Your task to perform on an android device: Search for Italian restaurants on Maps Image 0: 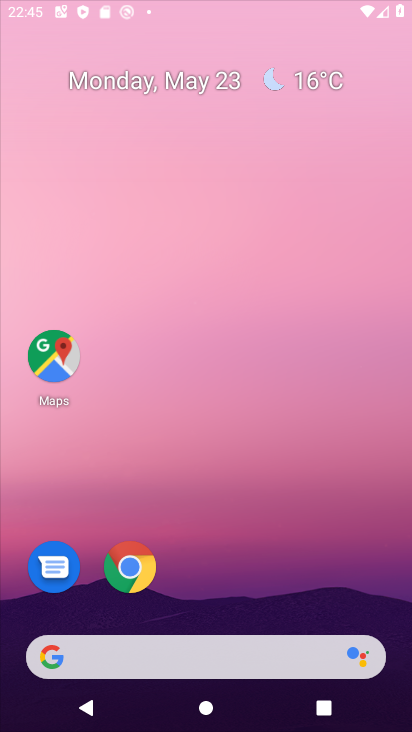
Step 0: click (317, 73)
Your task to perform on an android device: Search for Italian restaurants on Maps Image 1: 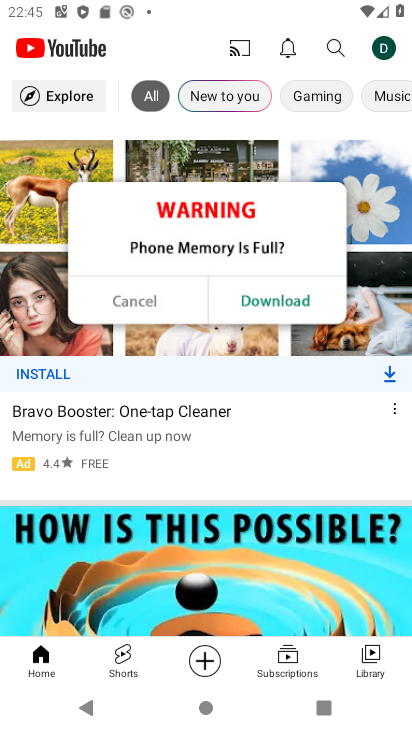
Step 1: drag from (229, 578) to (295, 134)
Your task to perform on an android device: Search for Italian restaurants on Maps Image 2: 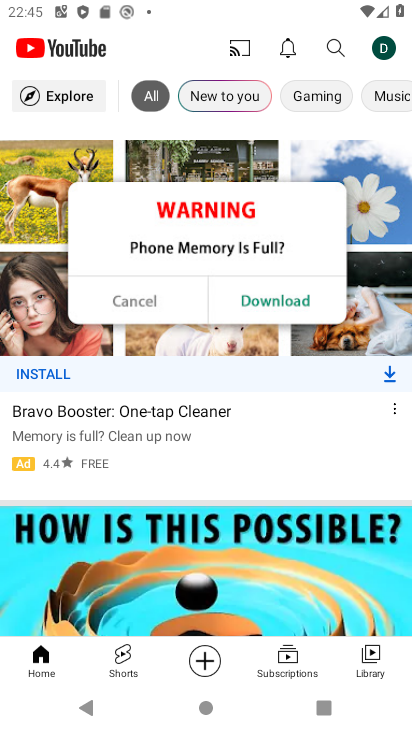
Step 2: drag from (265, 491) to (272, 67)
Your task to perform on an android device: Search for Italian restaurants on Maps Image 3: 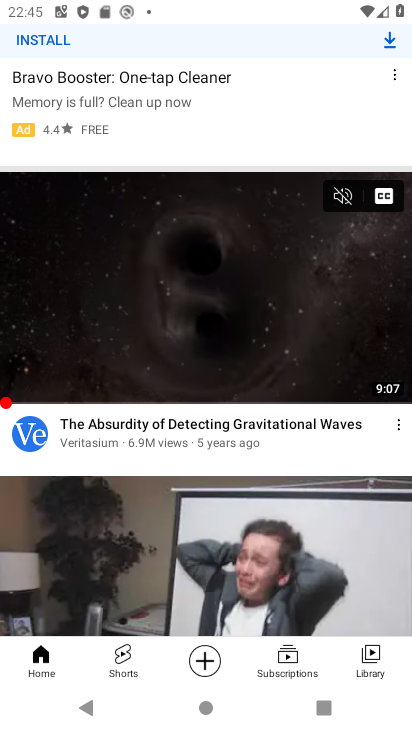
Step 3: drag from (185, 567) to (392, 17)
Your task to perform on an android device: Search for Italian restaurants on Maps Image 4: 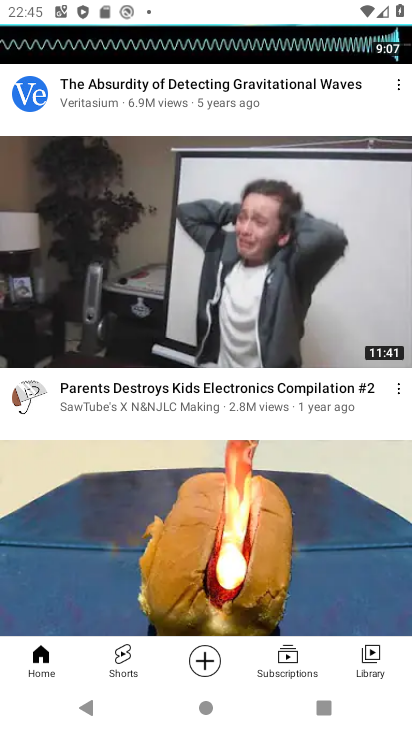
Step 4: press home button
Your task to perform on an android device: Search for Italian restaurants on Maps Image 5: 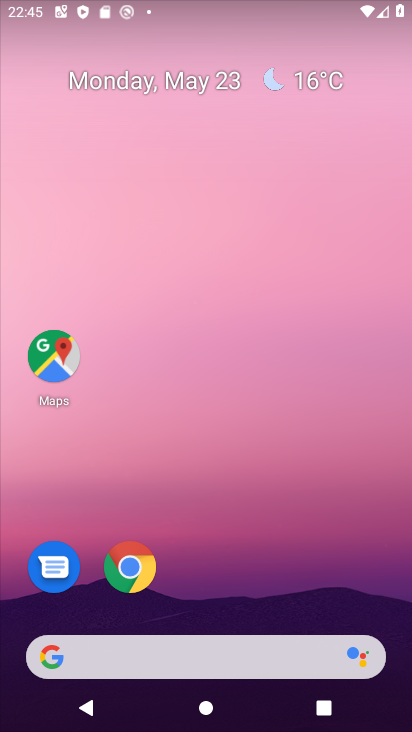
Step 5: drag from (164, 616) to (231, 85)
Your task to perform on an android device: Search for Italian restaurants on Maps Image 6: 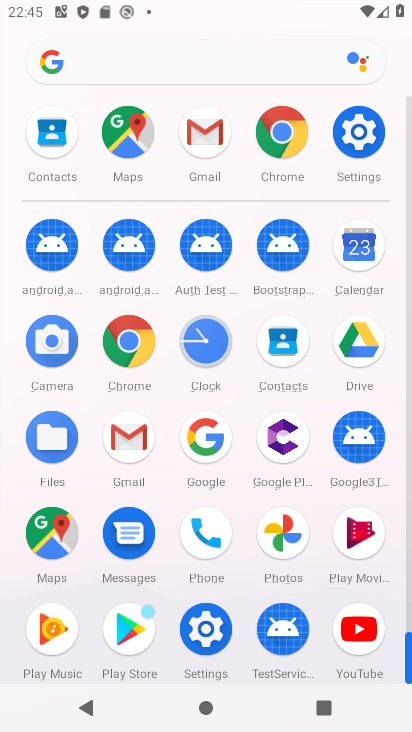
Step 6: click (51, 523)
Your task to perform on an android device: Search for Italian restaurants on Maps Image 7: 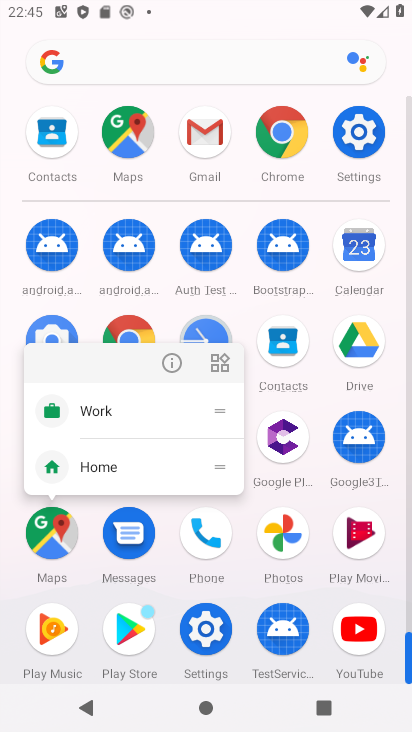
Step 7: click (166, 369)
Your task to perform on an android device: Search for Italian restaurants on Maps Image 8: 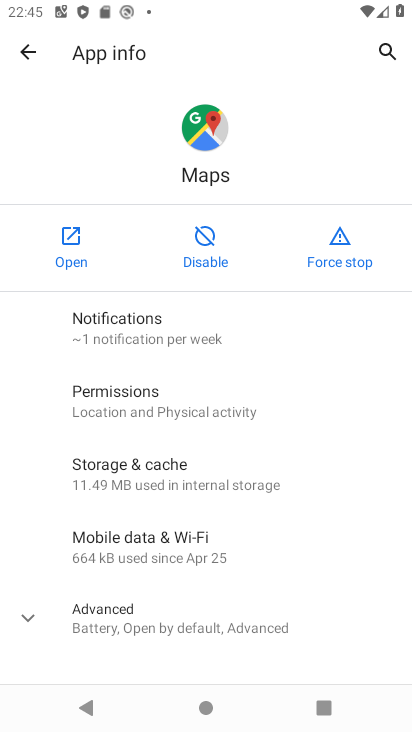
Step 8: click (69, 231)
Your task to perform on an android device: Search for Italian restaurants on Maps Image 9: 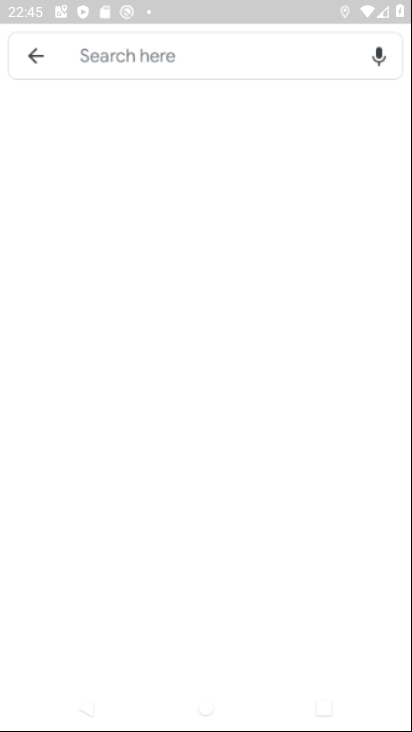
Step 9: drag from (195, 622) to (291, 123)
Your task to perform on an android device: Search for Italian restaurants on Maps Image 10: 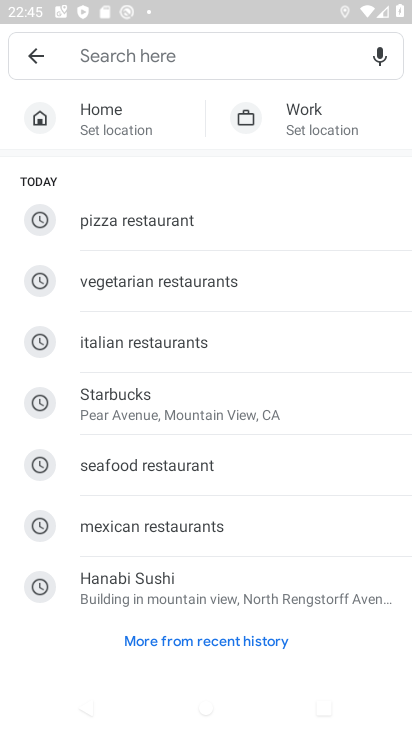
Step 10: drag from (245, 579) to (283, 196)
Your task to perform on an android device: Search for Italian restaurants on Maps Image 11: 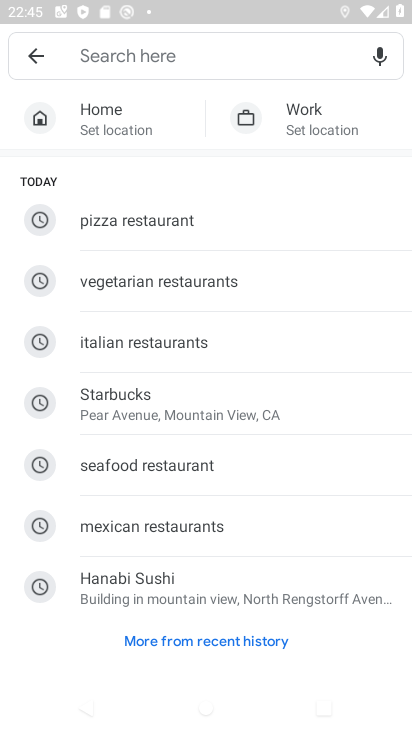
Step 11: click (153, 344)
Your task to perform on an android device: Search for Italian restaurants on Maps Image 12: 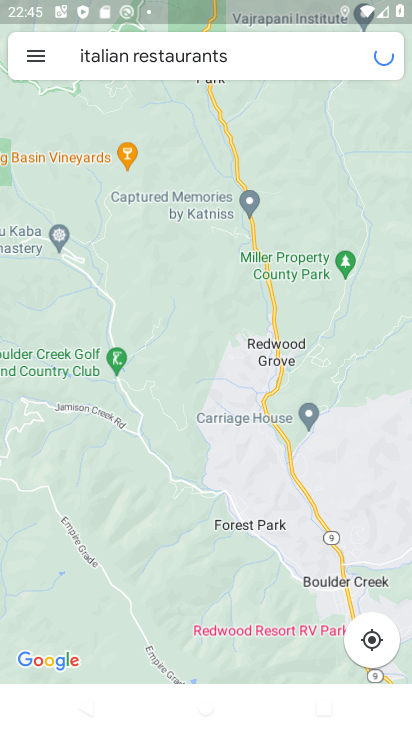
Step 12: task complete